Your task to perform on an android device: Go to Yahoo.com Image 0: 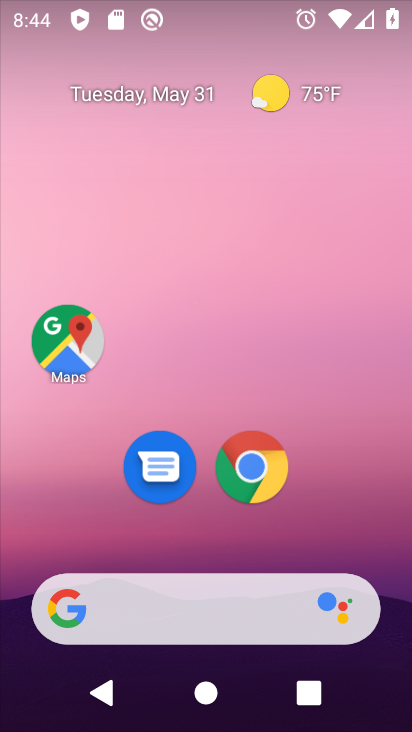
Step 0: drag from (215, 552) to (211, 223)
Your task to perform on an android device: Go to Yahoo.com Image 1: 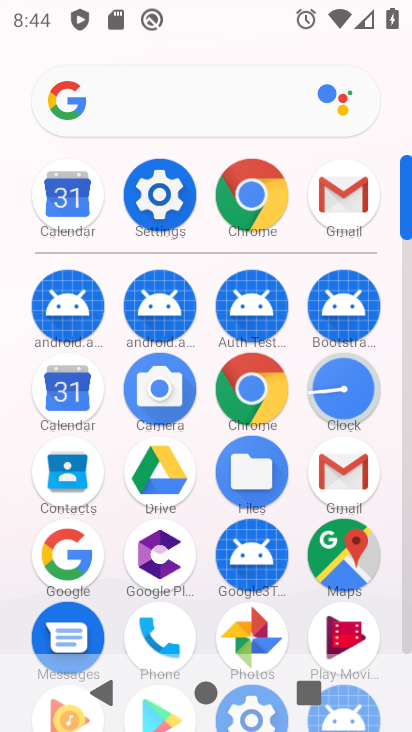
Step 1: click (163, 93)
Your task to perform on an android device: Go to Yahoo.com Image 2: 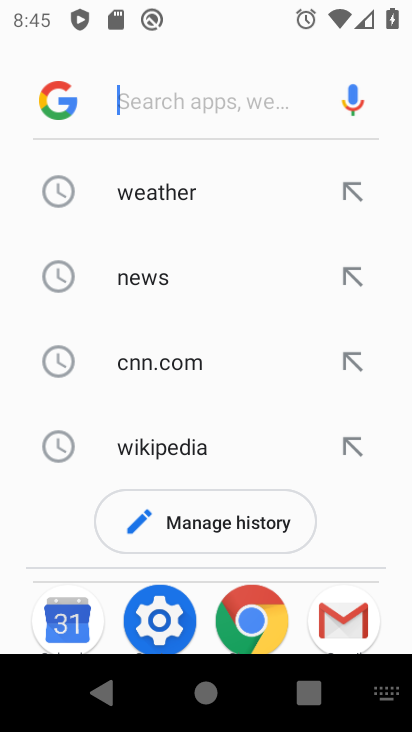
Step 2: type "Yahoo.com"
Your task to perform on an android device: Go to Yahoo.com Image 3: 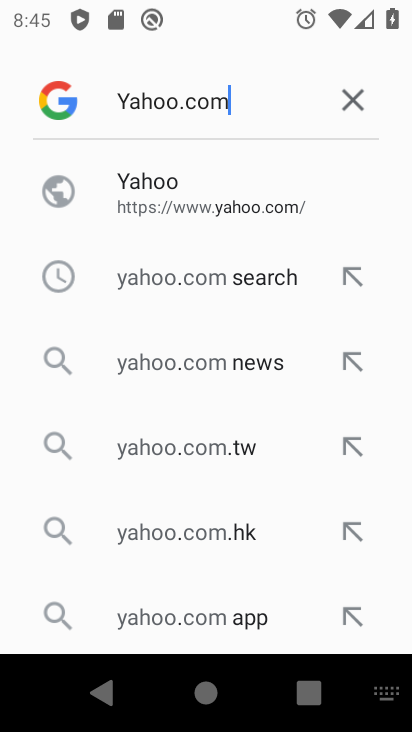
Step 3: type ""
Your task to perform on an android device: Go to Yahoo.com Image 4: 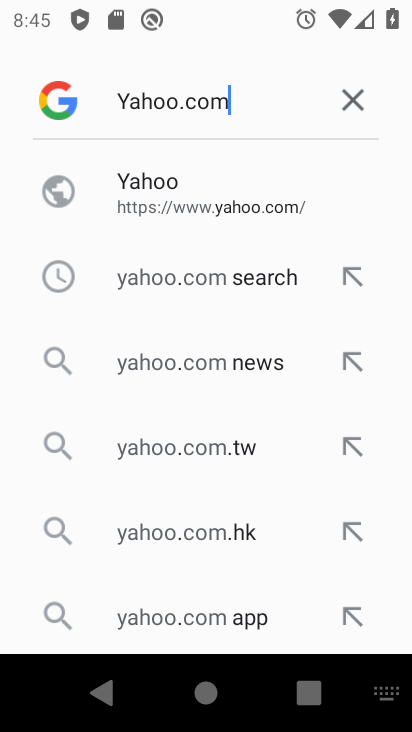
Step 4: click (197, 179)
Your task to perform on an android device: Go to Yahoo.com Image 5: 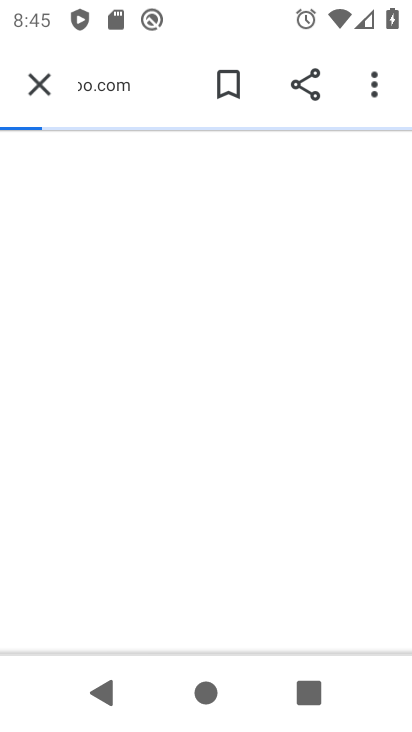
Step 5: task complete